Your task to perform on an android device: Open calendar and show me the first week of next month Image 0: 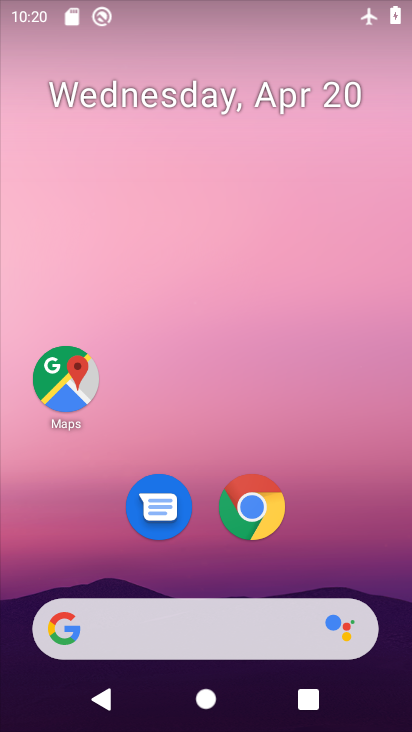
Step 0: drag from (204, 570) to (222, 137)
Your task to perform on an android device: Open calendar and show me the first week of next month Image 1: 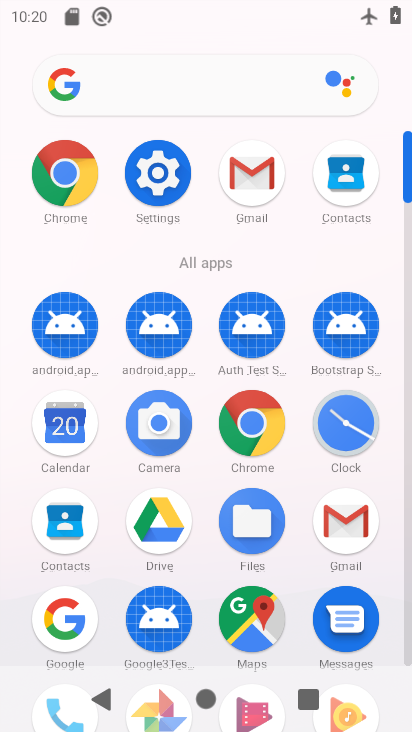
Step 1: click (75, 430)
Your task to perform on an android device: Open calendar and show me the first week of next month Image 2: 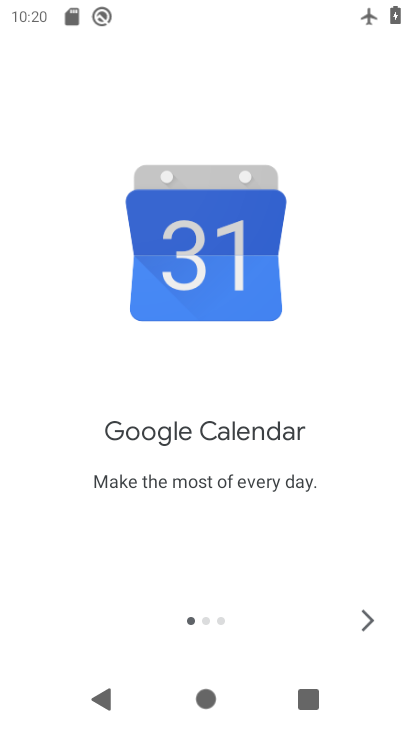
Step 2: click (363, 624)
Your task to perform on an android device: Open calendar and show me the first week of next month Image 3: 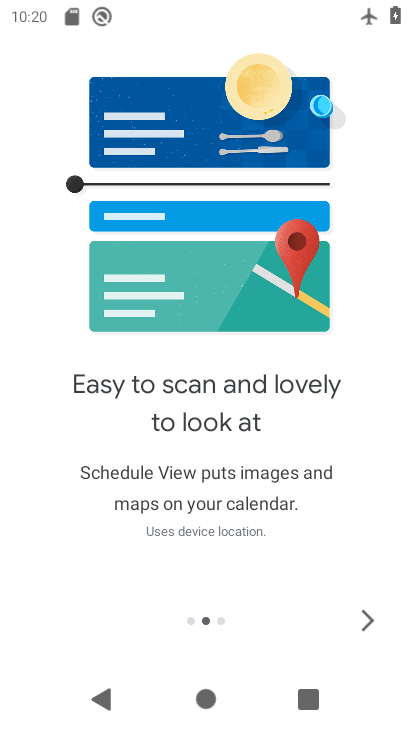
Step 3: click (363, 621)
Your task to perform on an android device: Open calendar and show me the first week of next month Image 4: 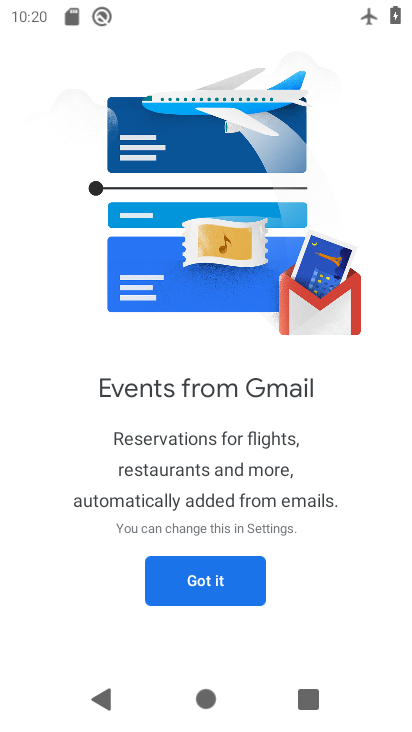
Step 4: click (227, 581)
Your task to perform on an android device: Open calendar and show me the first week of next month Image 5: 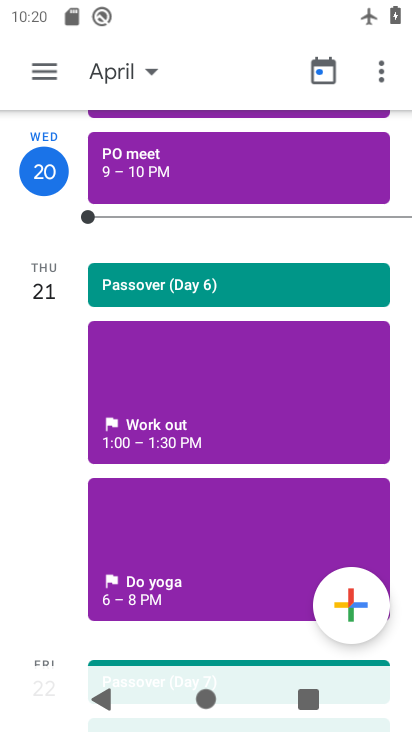
Step 5: click (118, 79)
Your task to perform on an android device: Open calendar and show me the first week of next month Image 6: 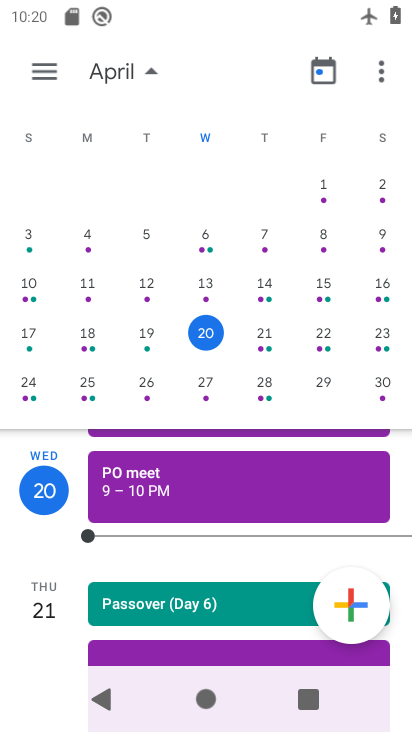
Step 6: drag from (371, 353) to (100, 295)
Your task to perform on an android device: Open calendar and show me the first week of next month Image 7: 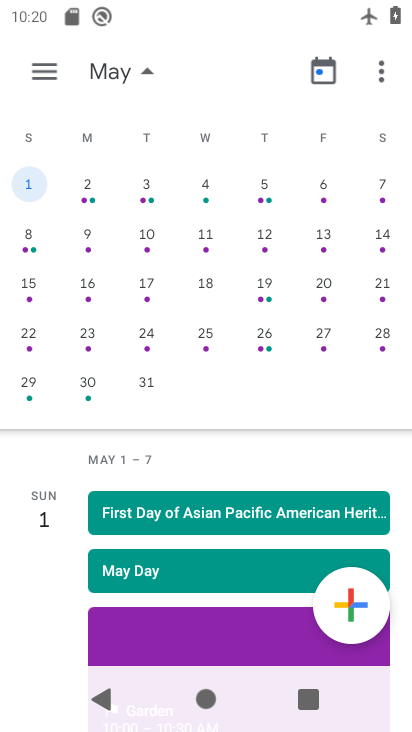
Step 7: click (144, 183)
Your task to perform on an android device: Open calendar and show me the first week of next month Image 8: 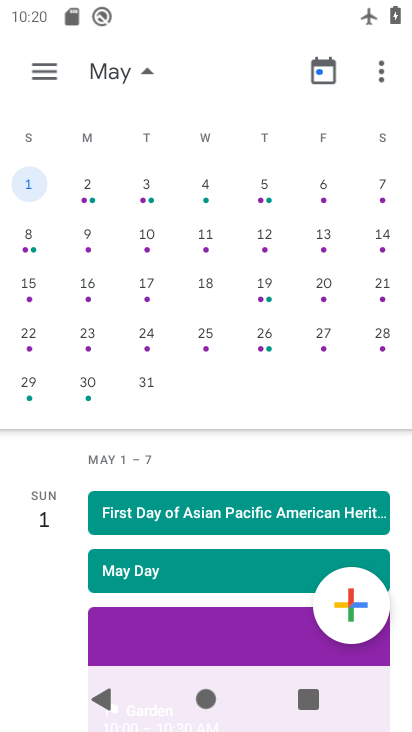
Step 8: click (40, 73)
Your task to perform on an android device: Open calendar and show me the first week of next month Image 9: 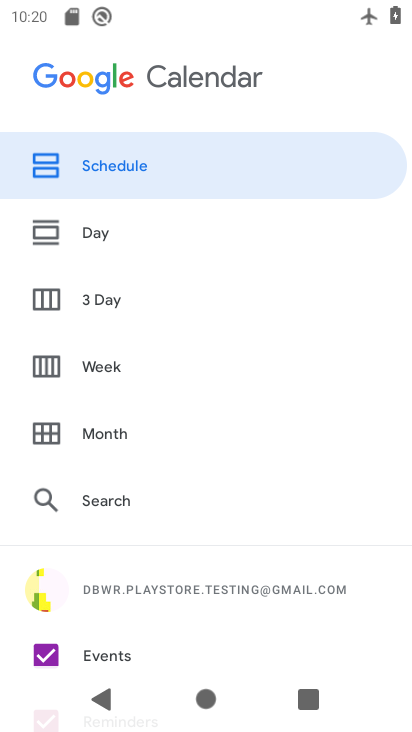
Step 9: click (116, 363)
Your task to perform on an android device: Open calendar and show me the first week of next month Image 10: 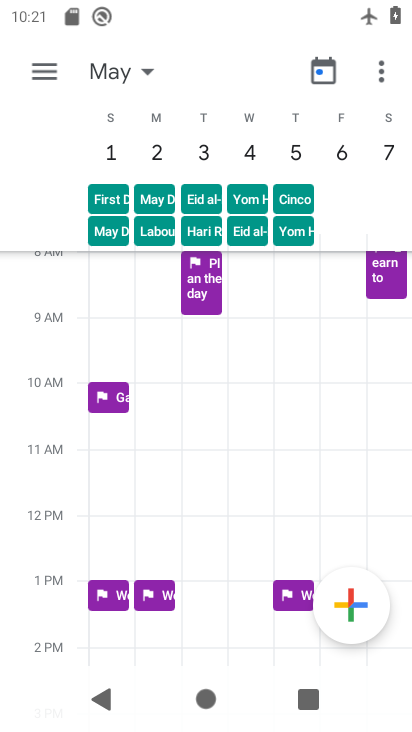
Step 10: task complete